Your task to perform on an android device: See recent photos Image 0: 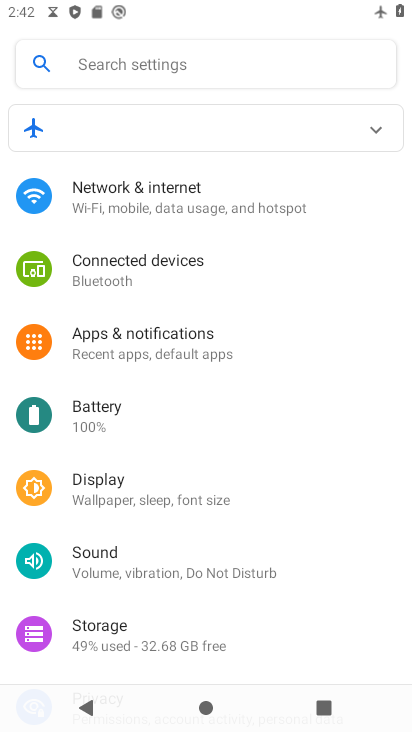
Step 0: press home button
Your task to perform on an android device: See recent photos Image 1: 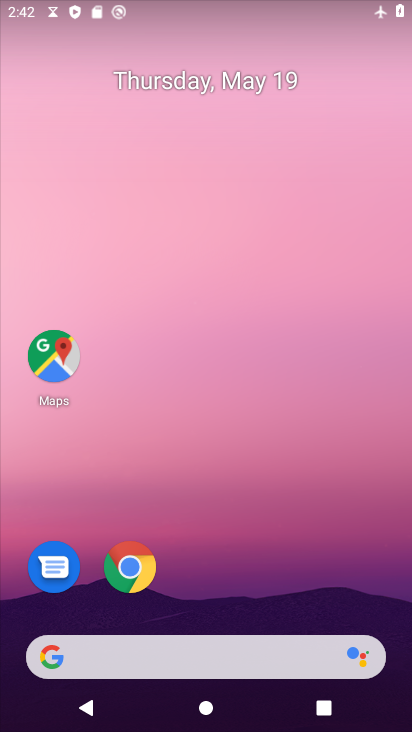
Step 1: drag from (182, 613) to (285, 23)
Your task to perform on an android device: See recent photos Image 2: 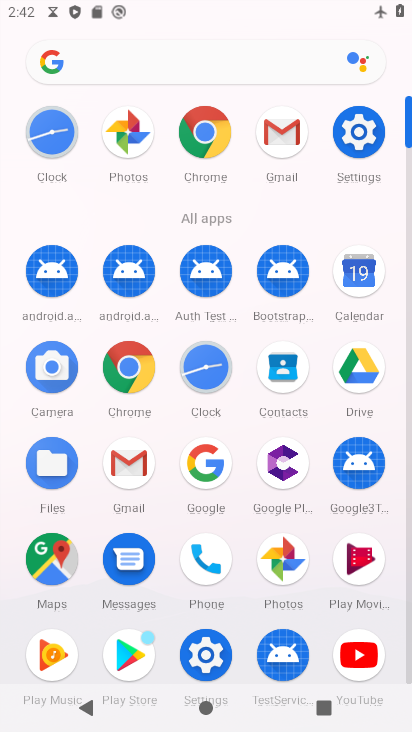
Step 2: click (293, 565)
Your task to perform on an android device: See recent photos Image 3: 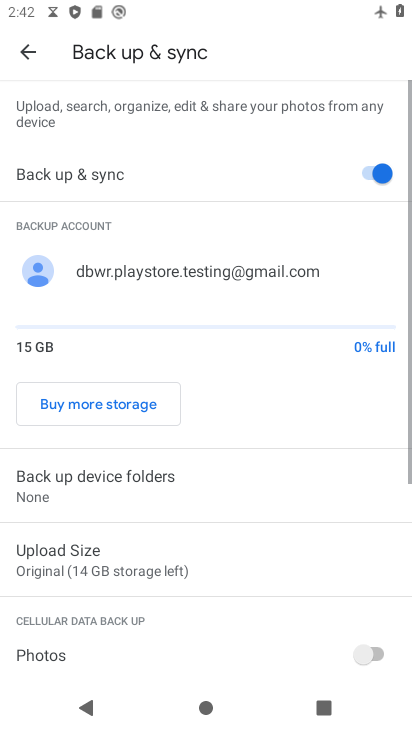
Step 3: click (44, 48)
Your task to perform on an android device: See recent photos Image 4: 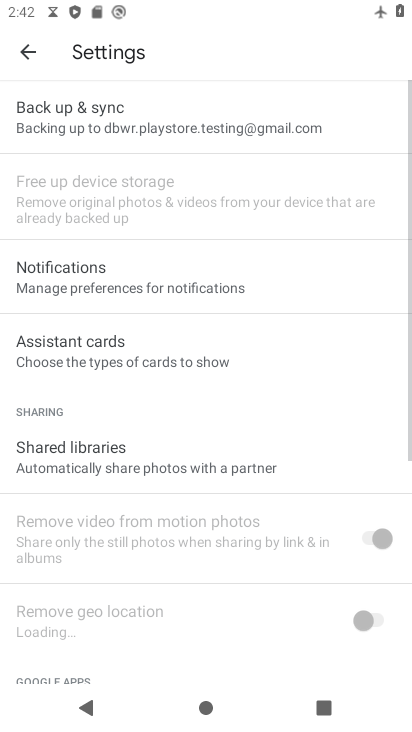
Step 4: click (25, 51)
Your task to perform on an android device: See recent photos Image 5: 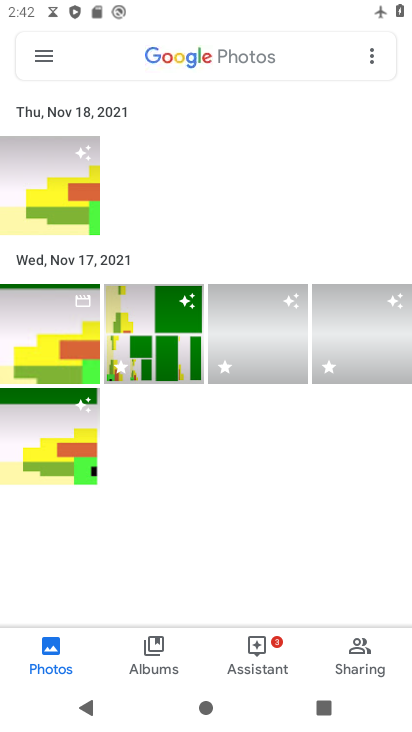
Step 5: task complete